Your task to perform on an android device: turn off wifi Image 0: 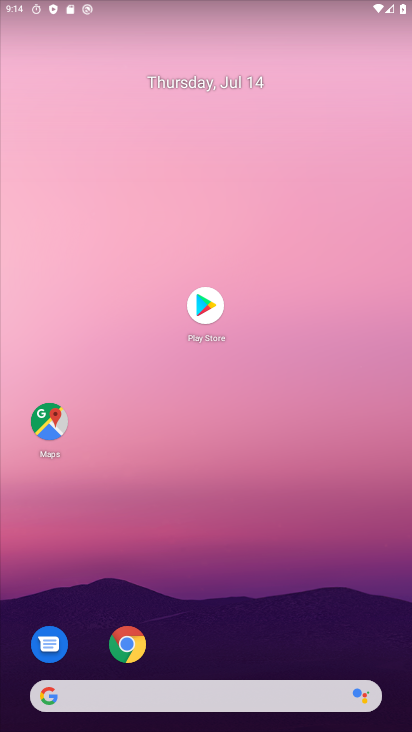
Step 0: click (203, 140)
Your task to perform on an android device: turn off wifi Image 1: 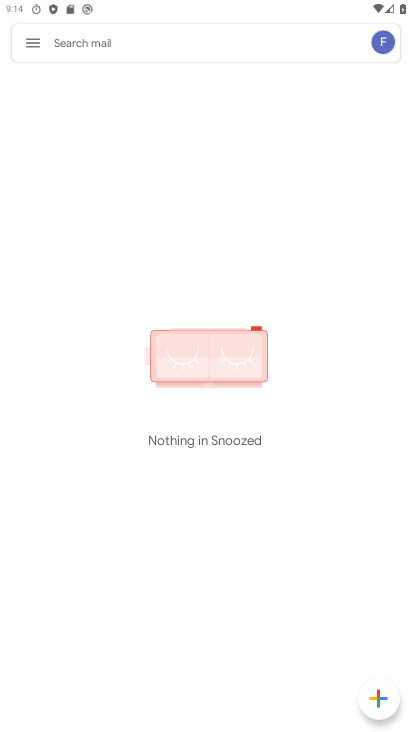
Step 1: drag from (183, 679) to (302, 236)
Your task to perform on an android device: turn off wifi Image 2: 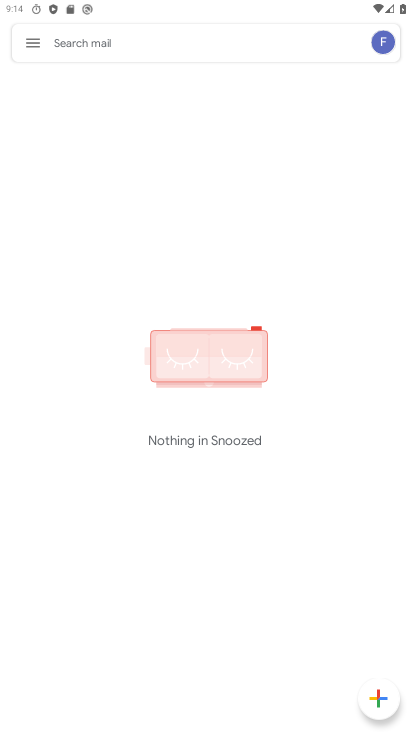
Step 2: press home button
Your task to perform on an android device: turn off wifi Image 3: 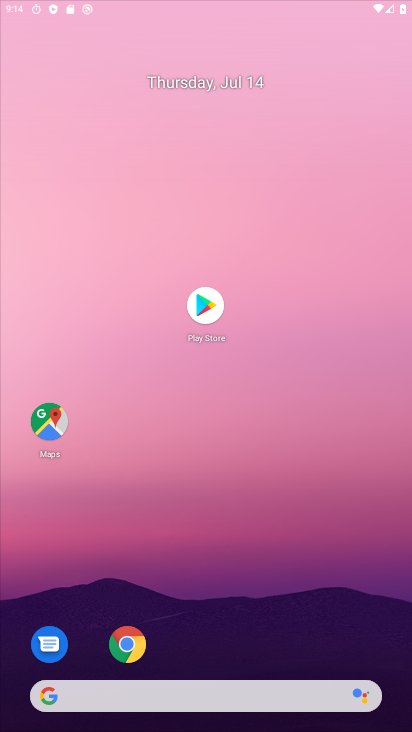
Step 3: drag from (173, 648) to (199, 255)
Your task to perform on an android device: turn off wifi Image 4: 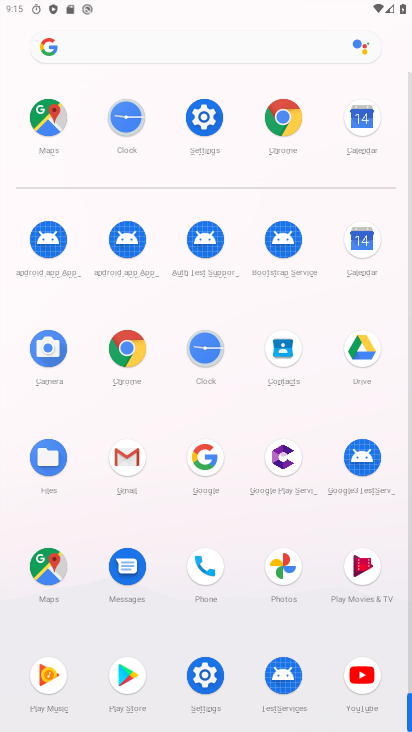
Step 4: click (199, 683)
Your task to perform on an android device: turn off wifi Image 5: 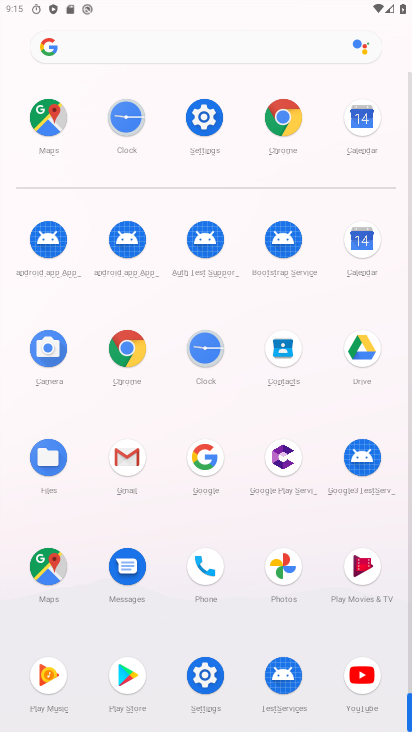
Step 5: click (199, 683)
Your task to perform on an android device: turn off wifi Image 6: 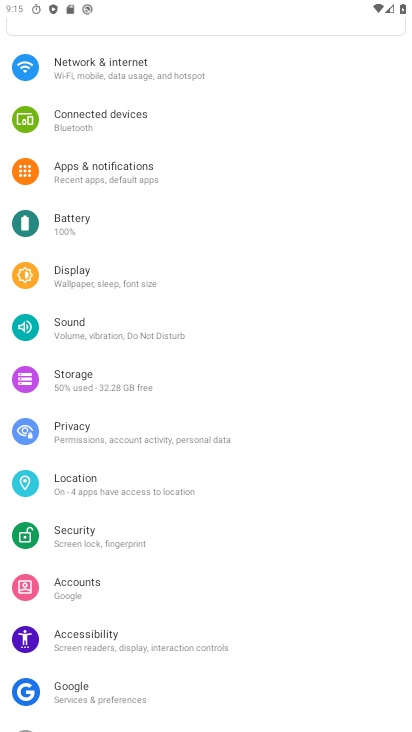
Step 6: drag from (158, 74) to (181, 443)
Your task to perform on an android device: turn off wifi Image 7: 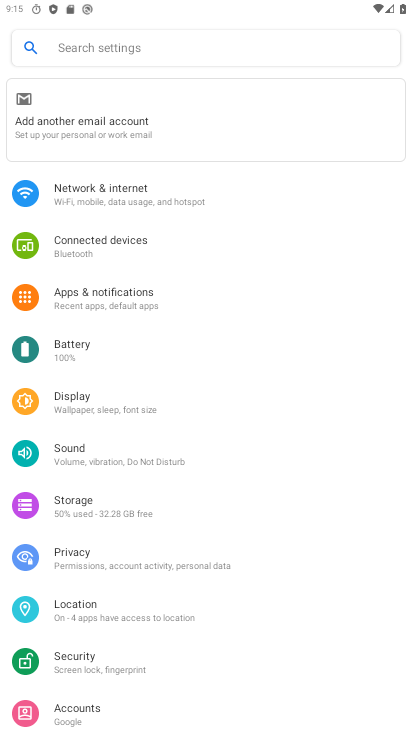
Step 7: click (197, 182)
Your task to perform on an android device: turn off wifi Image 8: 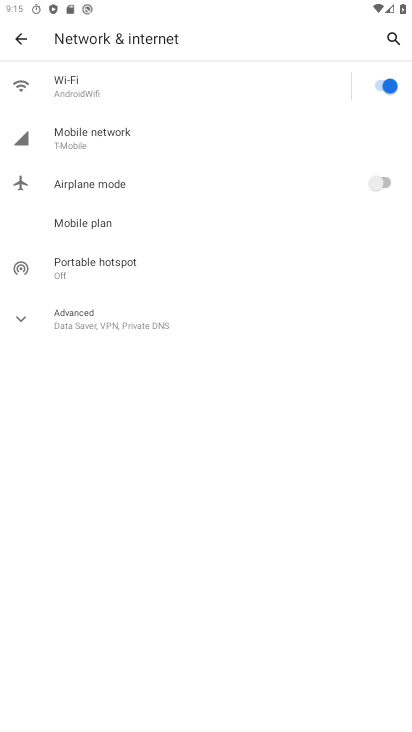
Step 8: click (98, 89)
Your task to perform on an android device: turn off wifi Image 9: 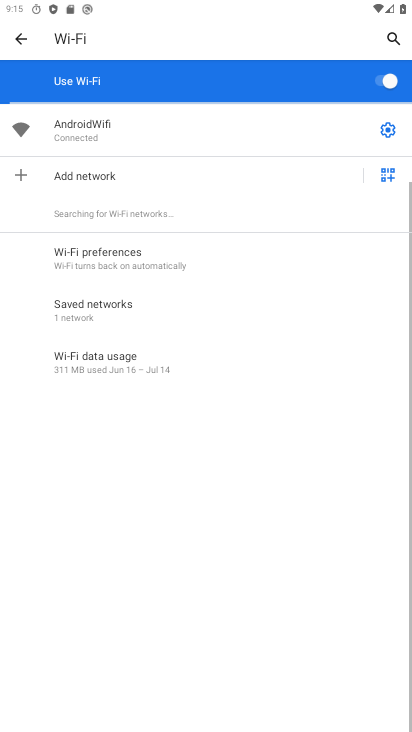
Step 9: drag from (261, 631) to (244, 283)
Your task to perform on an android device: turn off wifi Image 10: 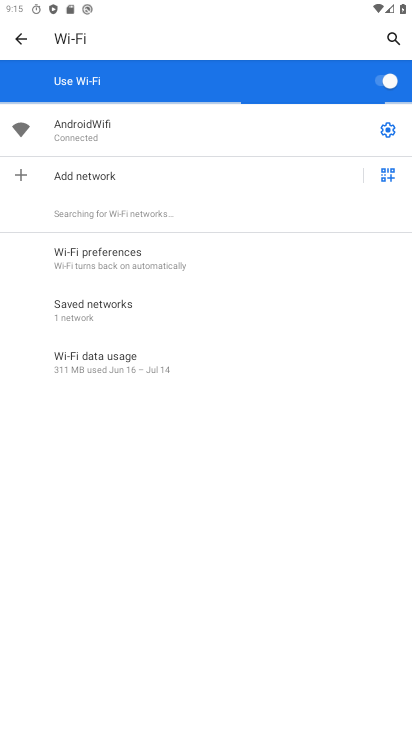
Step 10: click (375, 87)
Your task to perform on an android device: turn off wifi Image 11: 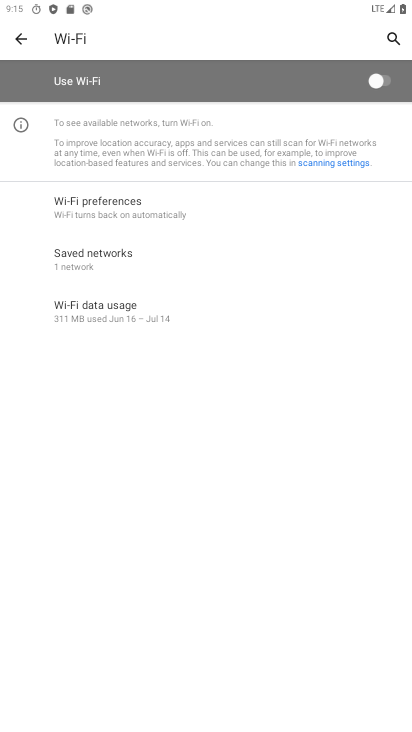
Step 11: task complete